Your task to perform on an android device: toggle javascript in the chrome app Image 0: 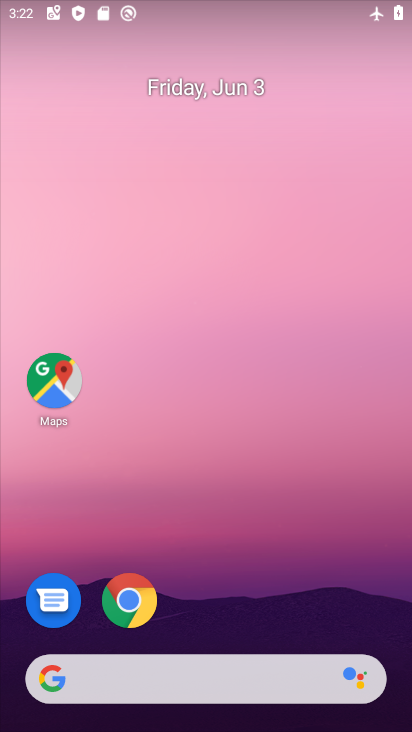
Step 0: click (129, 619)
Your task to perform on an android device: toggle javascript in the chrome app Image 1: 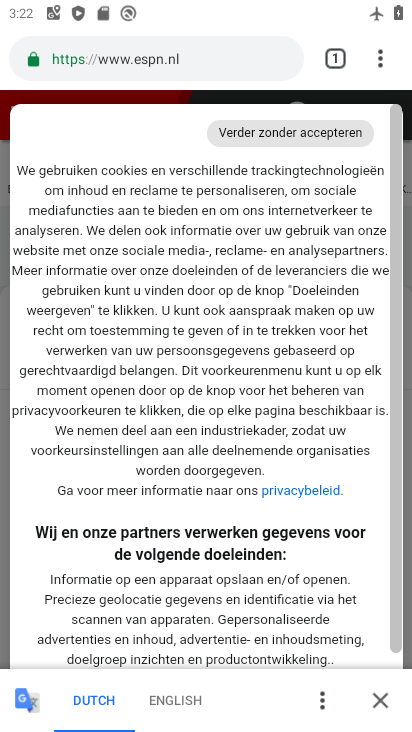
Step 1: click (377, 58)
Your task to perform on an android device: toggle javascript in the chrome app Image 2: 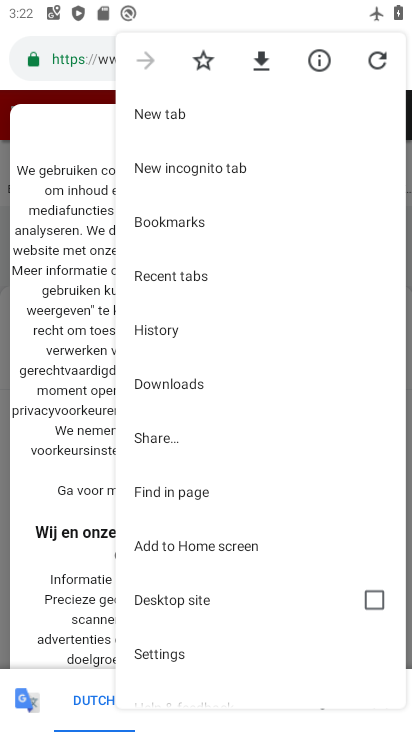
Step 2: click (159, 653)
Your task to perform on an android device: toggle javascript in the chrome app Image 3: 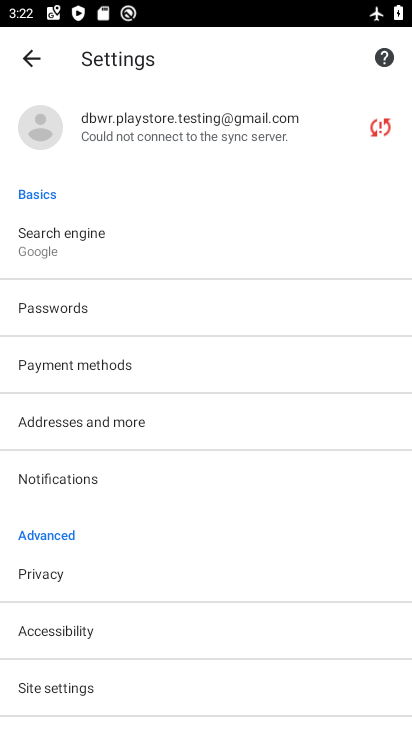
Step 3: click (62, 684)
Your task to perform on an android device: toggle javascript in the chrome app Image 4: 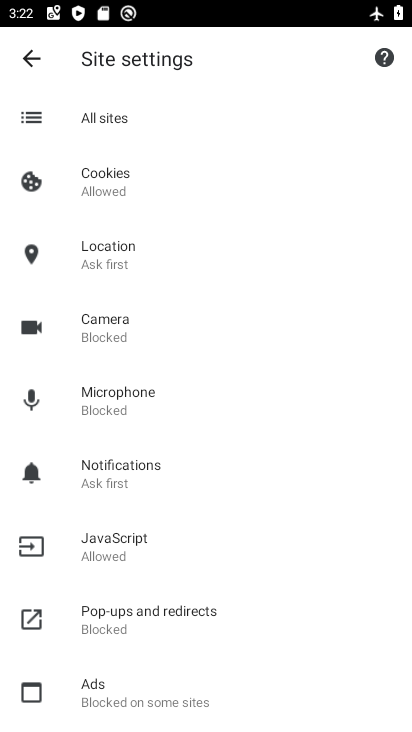
Step 4: click (102, 552)
Your task to perform on an android device: toggle javascript in the chrome app Image 5: 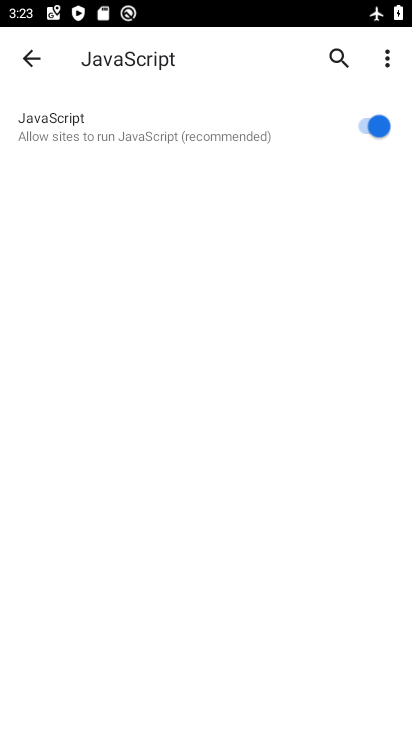
Step 5: click (355, 121)
Your task to perform on an android device: toggle javascript in the chrome app Image 6: 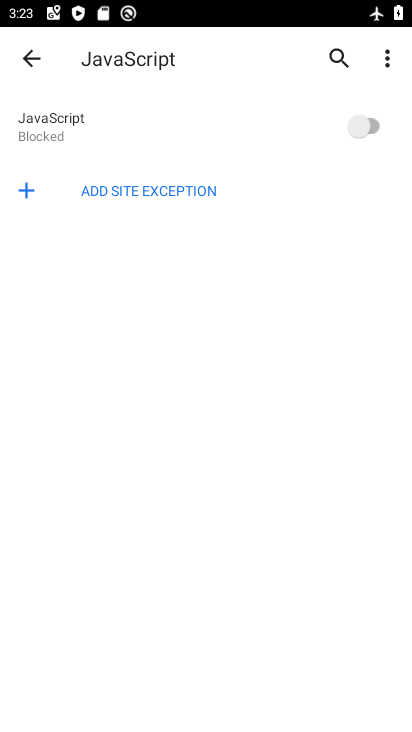
Step 6: task complete